Your task to perform on an android device: turn off data saver in the chrome app Image 0: 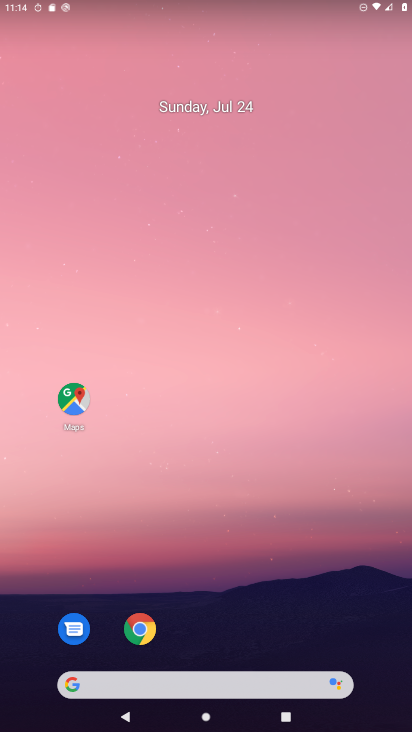
Step 0: drag from (190, 664) to (201, 154)
Your task to perform on an android device: turn off data saver in the chrome app Image 1: 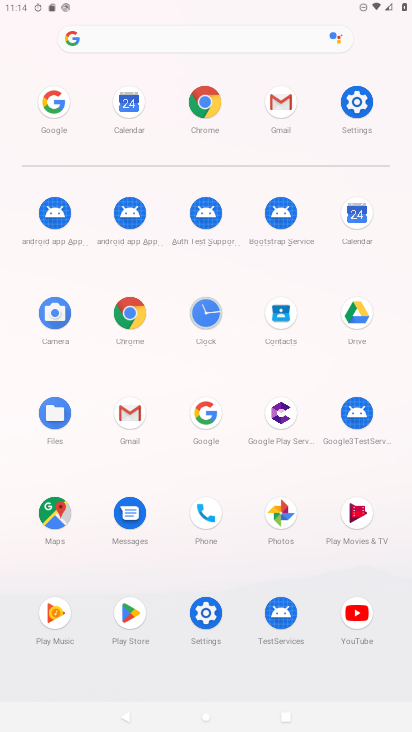
Step 1: click (212, 118)
Your task to perform on an android device: turn off data saver in the chrome app Image 2: 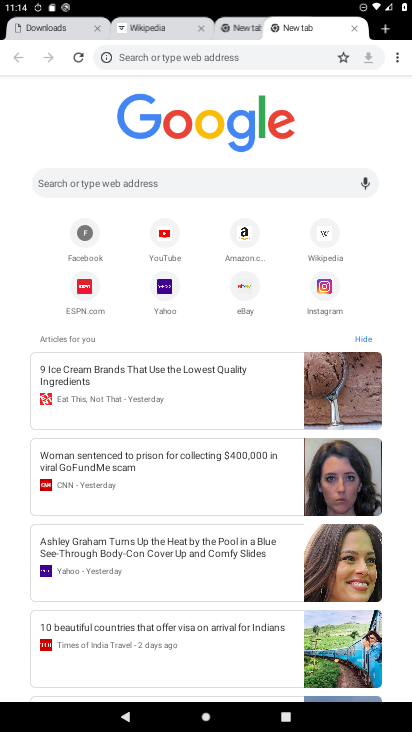
Step 2: click (400, 58)
Your task to perform on an android device: turn off data saver in the chrome app Image 3: 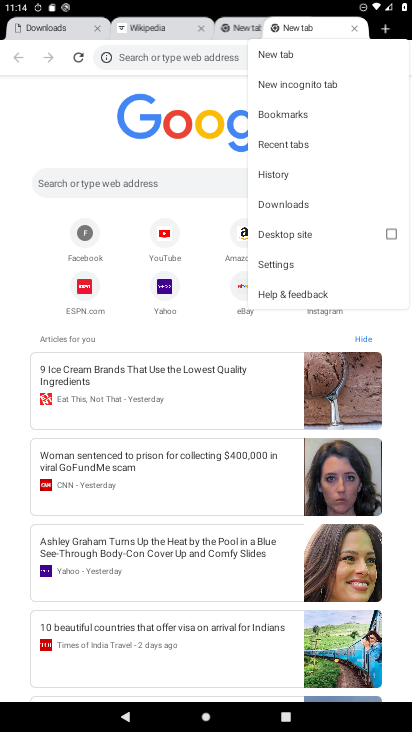
Step 3: click (279, 264)
Your task to perform on an android device: turn off data saver in the chrome app Image 4: 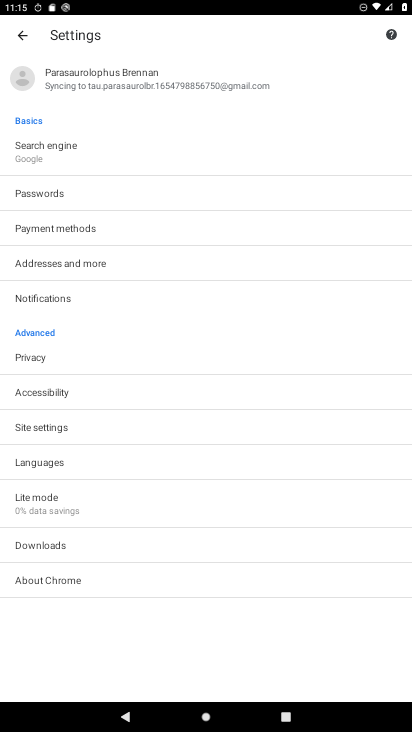
Step 4: click (46, 501)
Your task to perform on an android device: turn off data saver in the chrome app Image 5: 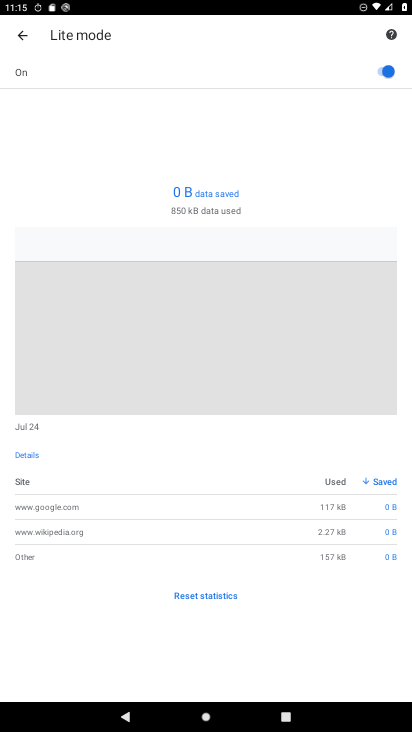
Step 5: click (385, 67)
Your task to perform on an android device: turn off data saver in the chrome app Image 6: 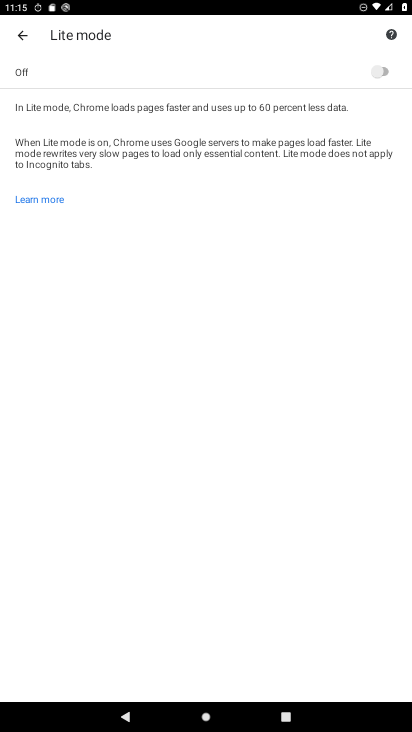
Step 6: task complete